Your task to perform on an android device: toggle show notifications on the lock screen Image 0: 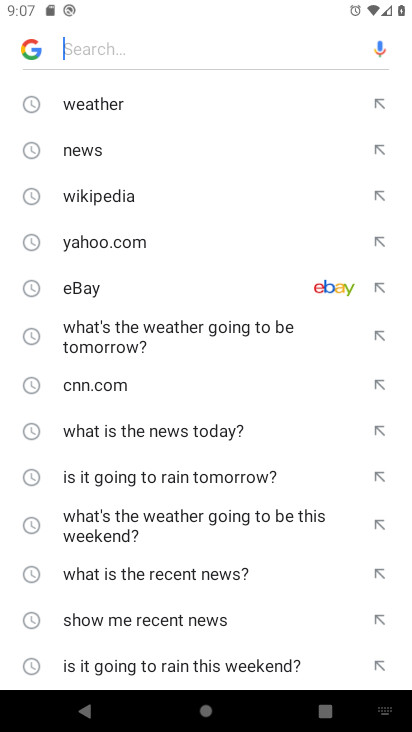
Step 0: press home button
Your task to perform on an android device: toggle show notifications on the lock screen Image 1: 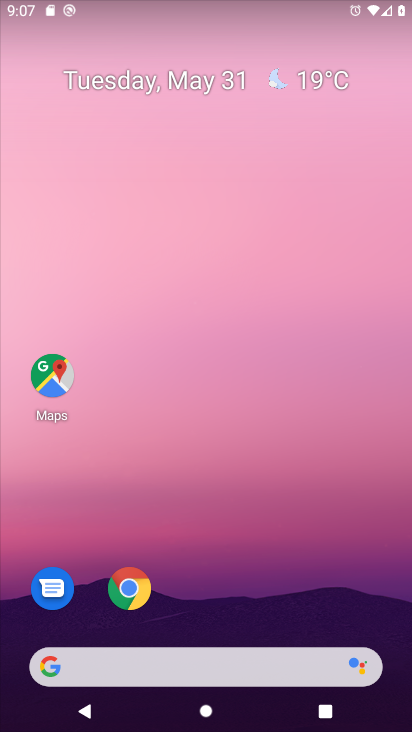
Step 1: drag from (181, 667) to (351, 95)
Your task to perform on an android device: toggle show notifications on the lock screen Image 2: 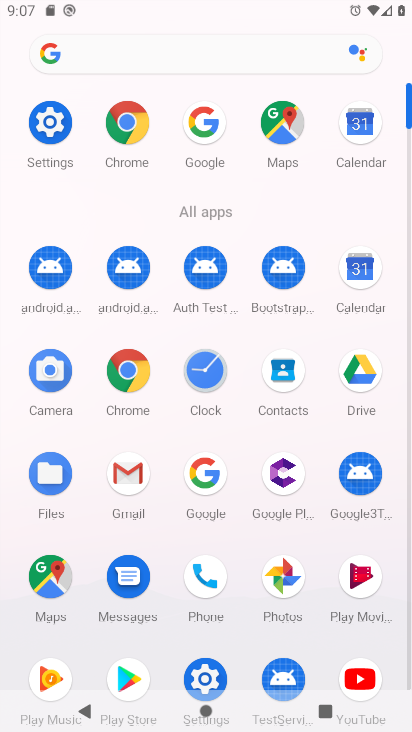
Step 2: click (53, 123)
Your task to perform on an android device: toggle show notifications on the lock screen Image 3: 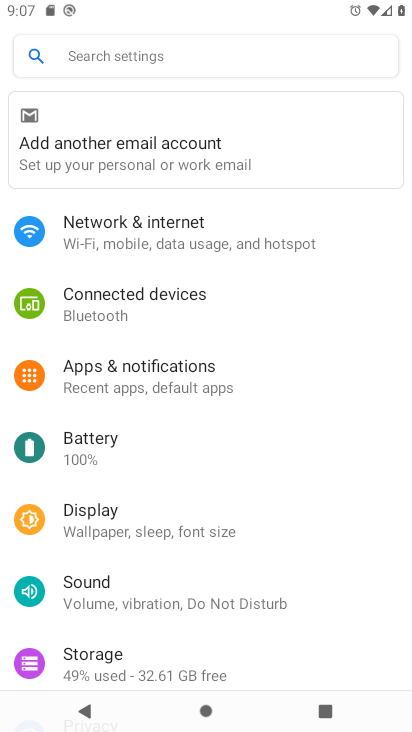
Step 3: click (177, 373)
Your task to perform on an android device: toggle show notifications on the lock screen Image 4: 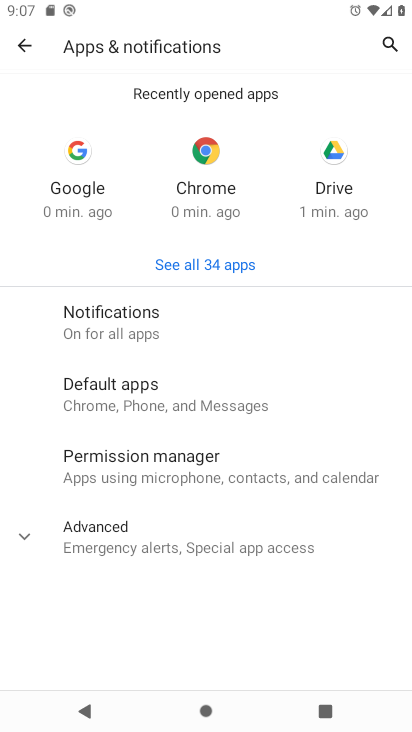
Step 4: click (132, 327)
Your task to perform on an android device: toggle show notifications on the lock screen Image 5: 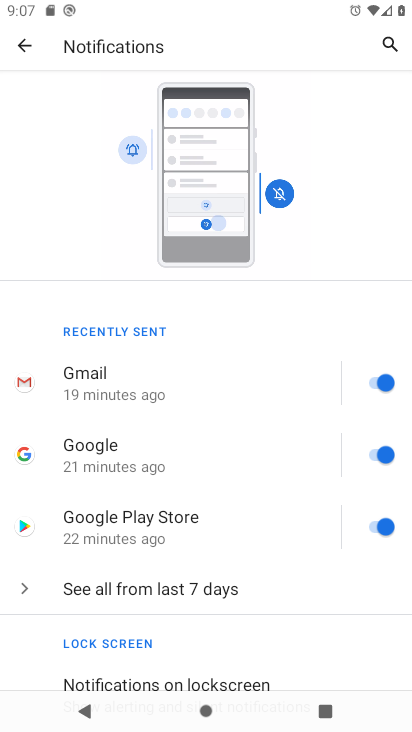
Step 5: drag from (209, 604) to (369, 183)
Your task to perform on an android device: toggle show notifications on the lock screen Image 6: 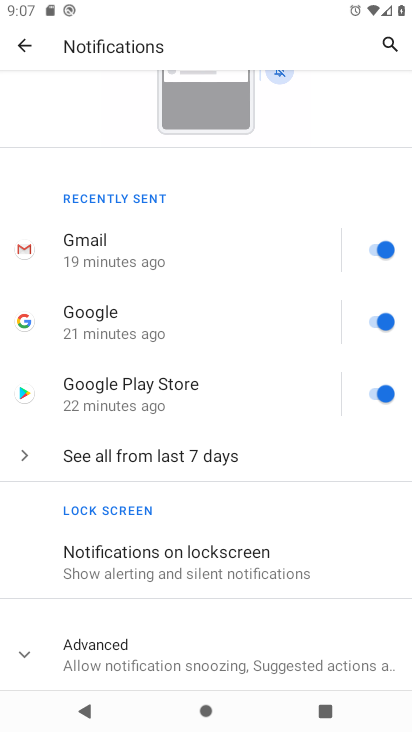
Step 6: click (195, 564)
Your task to perform on an android device: toggle show notifications on the lock screen Image 7: 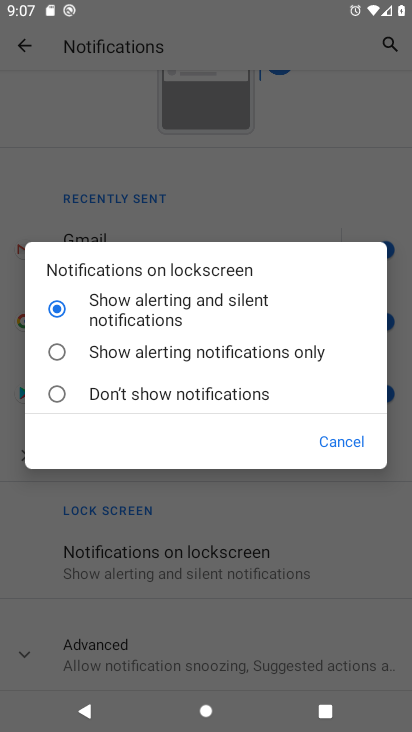
Step 7: click (61, 395)
Your task to perform on an android device: toggle show notifications on the lock screen Image 8: 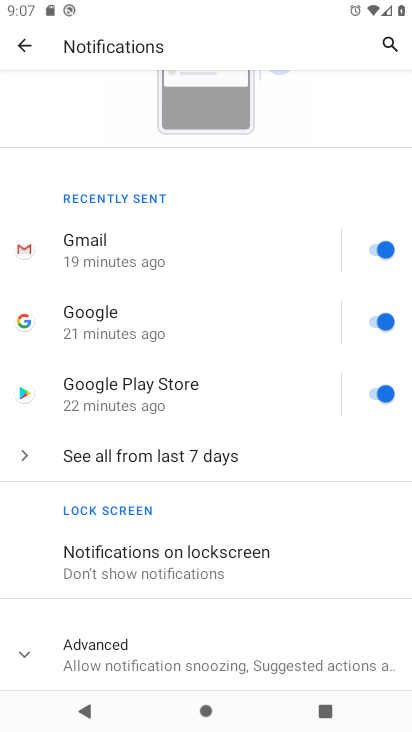
Step 8: task complete